Your task to perform on an android device: Go to Maps Image 0: 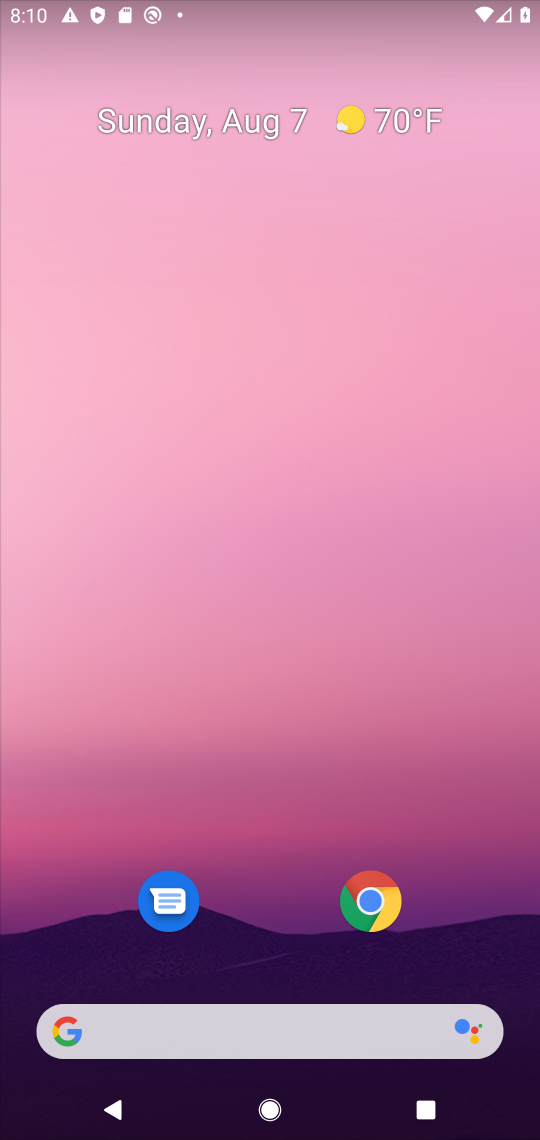
Step 0: drag from (265, 773) to (185, 154)
Your task to perform on an android device: Go to Maps Image 1: 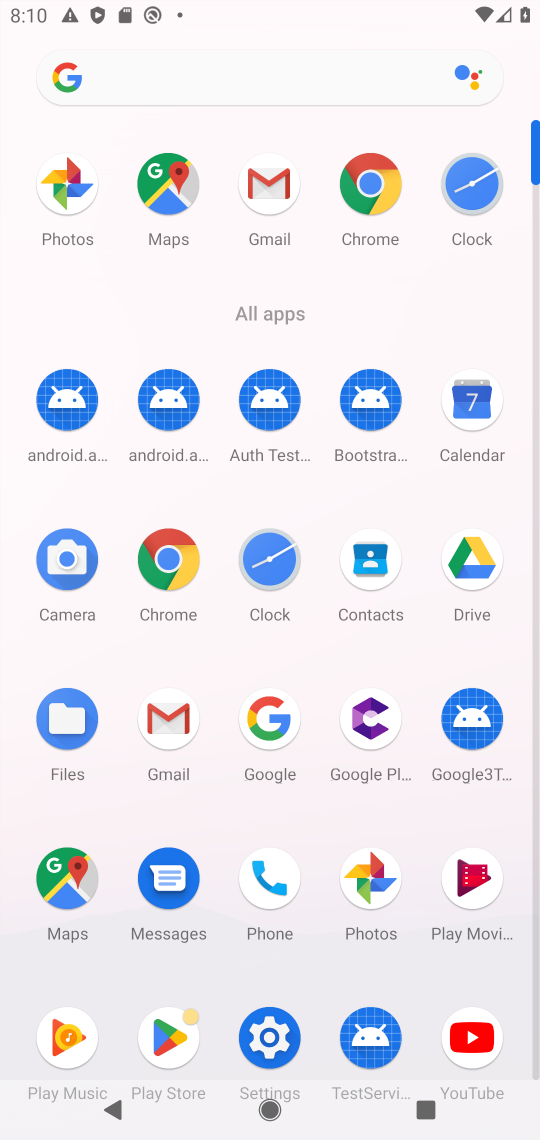
Step 1: click (170, 200)
Your task to perform on an android device: Go to Maps Image 2: 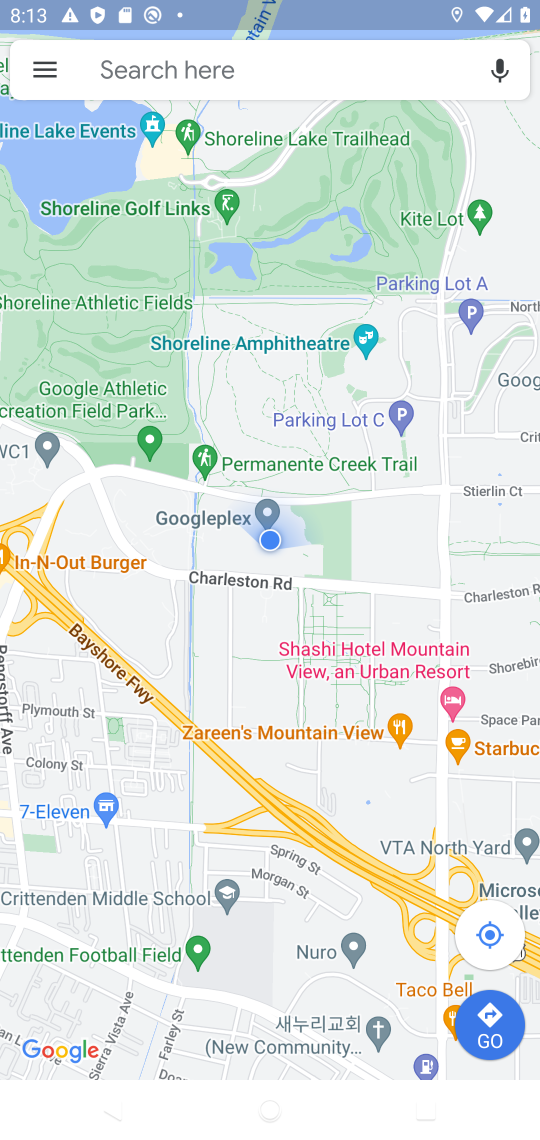
Step 2: task complete